Your task to perform on an android device: turn on data saver in the chrome app Image 0: 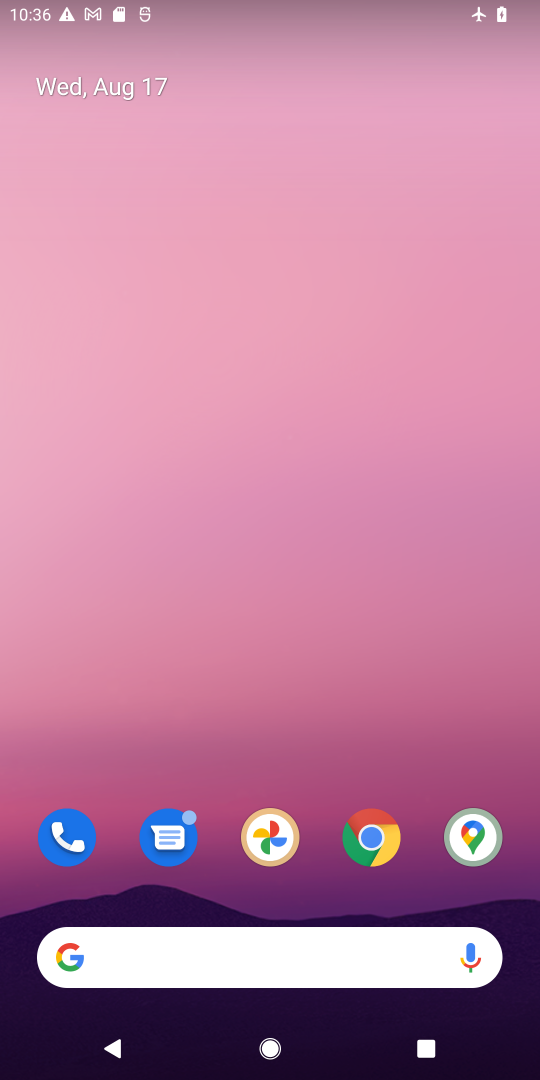
Step 0: click (373, 838)
Your task to perform on an android device: turn on data saver in the chrome app Image 1: 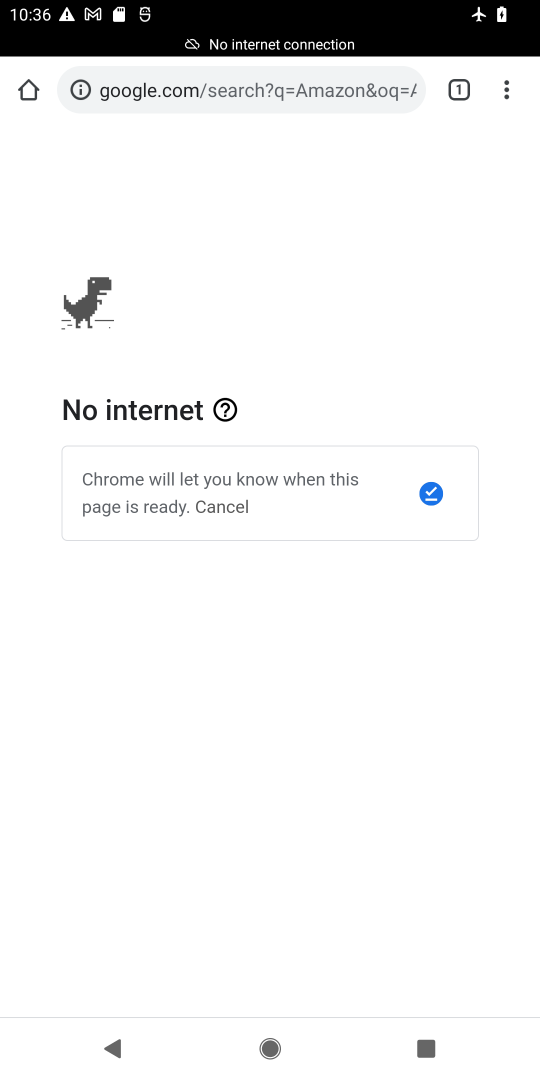
Step 1: drag from (509, 91) to (320, 841)
Your task to perform on an android device: turn on data saver in the chrome app Image 2: 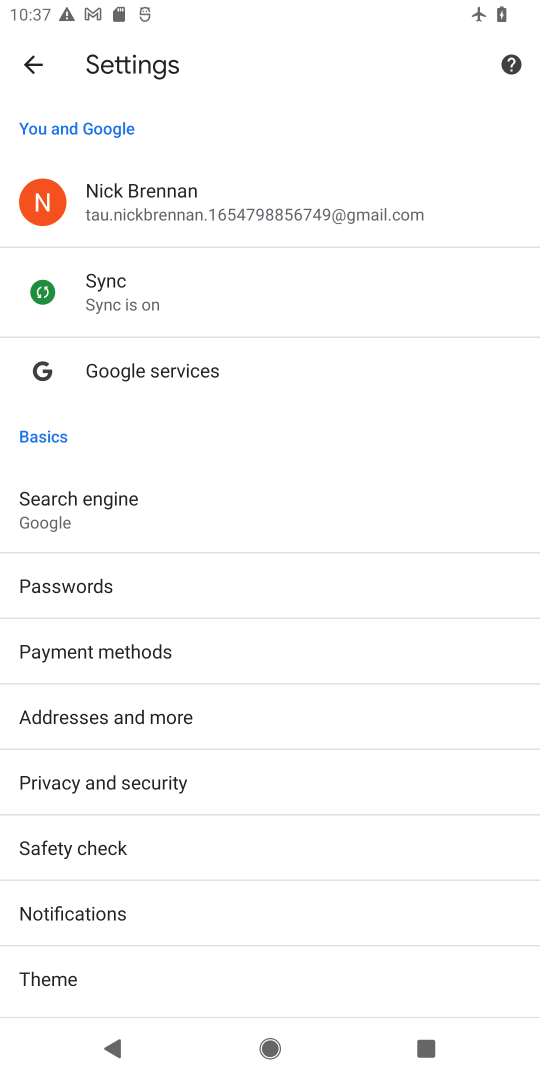
Step 2: drag from (176, 854) to (270, 700)
Your task to perform on an android device: turn on data saver in the chrome app Image 3: 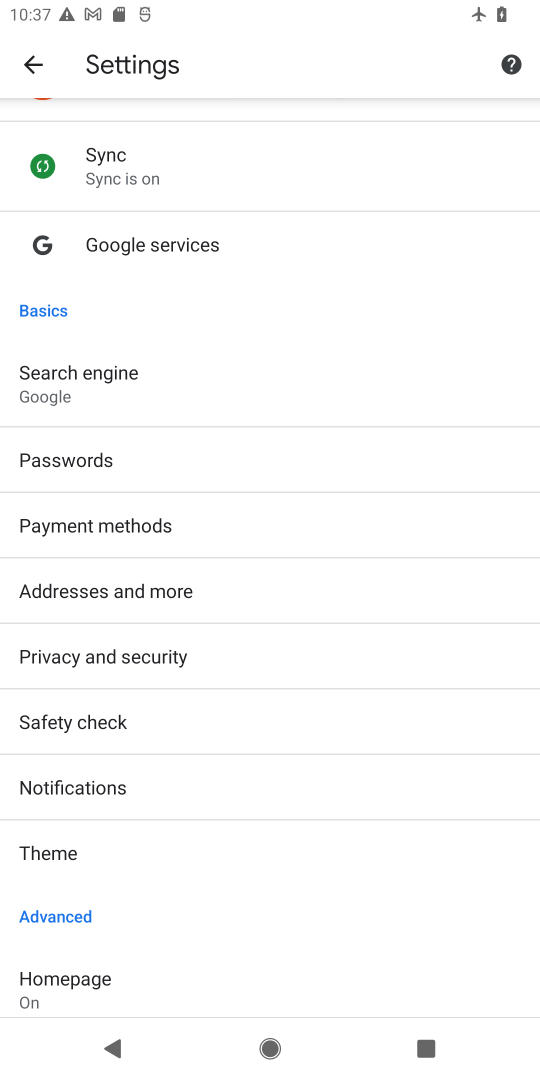
Step 3: drag from (183, 859) to (279, 699)
Your task to perform on an android device: turn on data saver in the chrome app Image 4: 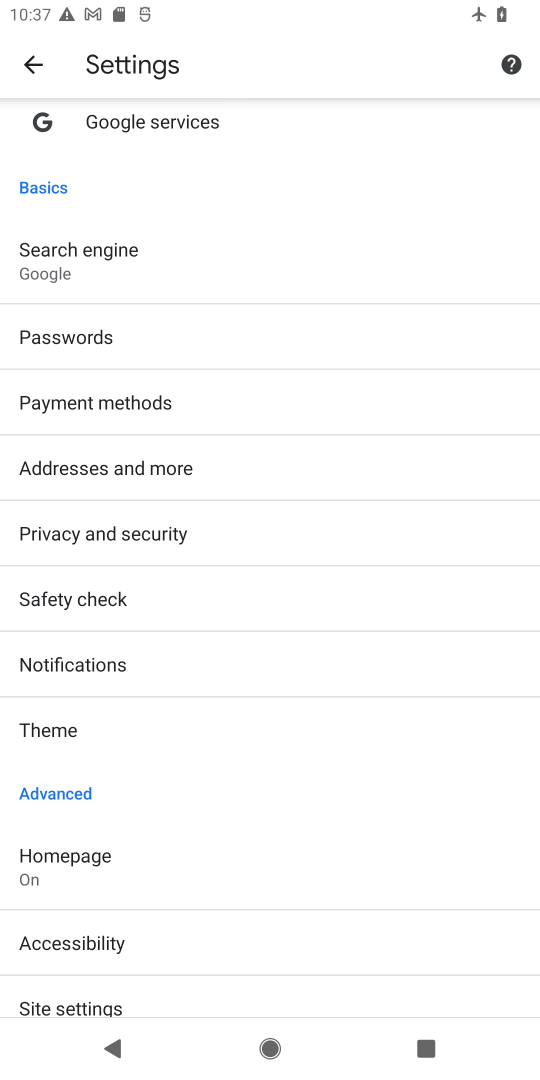
Step 4: drag from (174, 898) to (274, 740)
Your task to perform on an android device: turn on data saver in the chrome app Image 5: 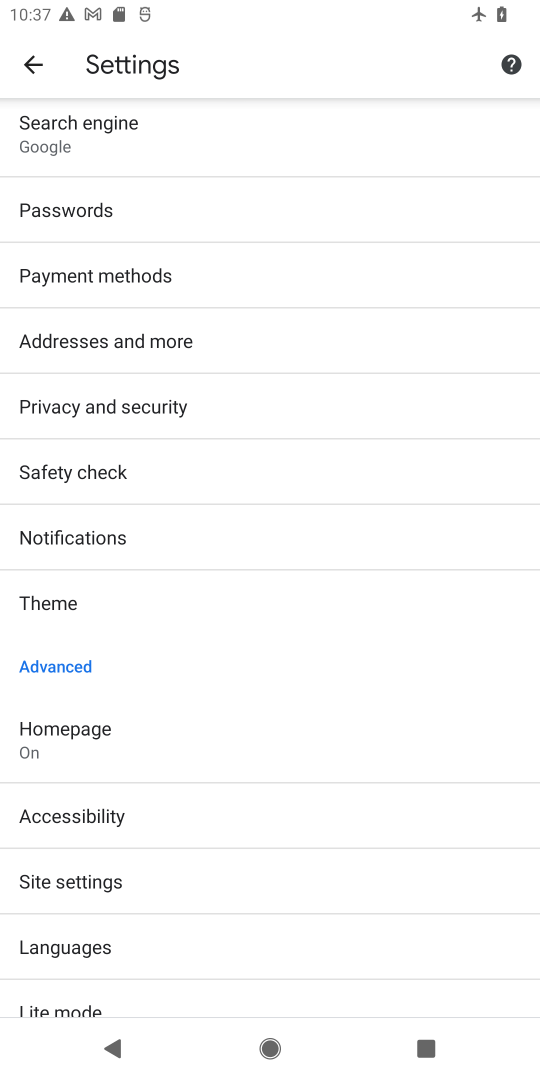
Step 5: drag from (159, 858) to (304, 690)
Your task to perform on an android device: turn on data saver in the chrome app Image 6: 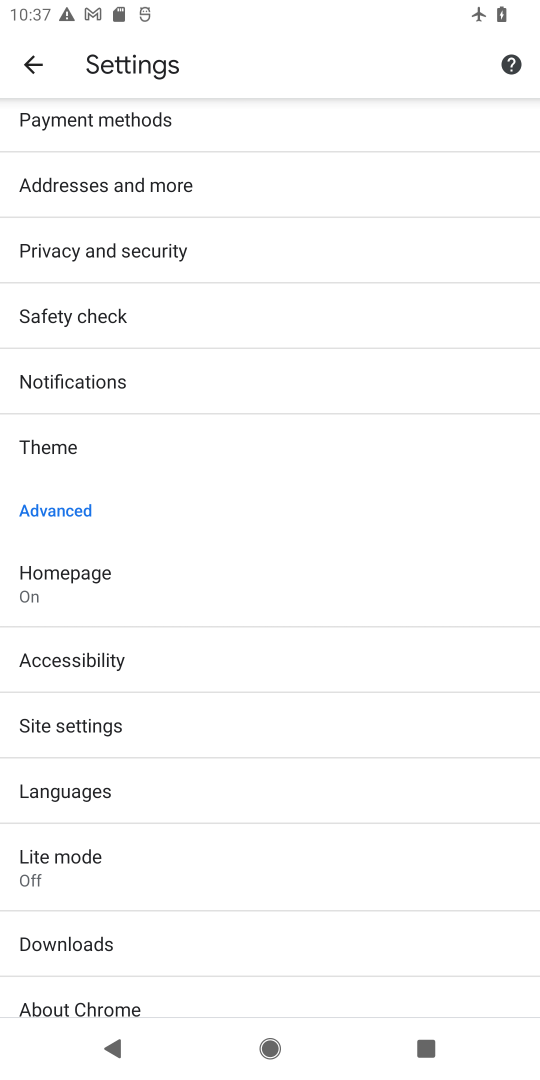
Step 6: click (33, 860)
Your task to perform on an android device: turn on data saver in the chrome app Image 7: 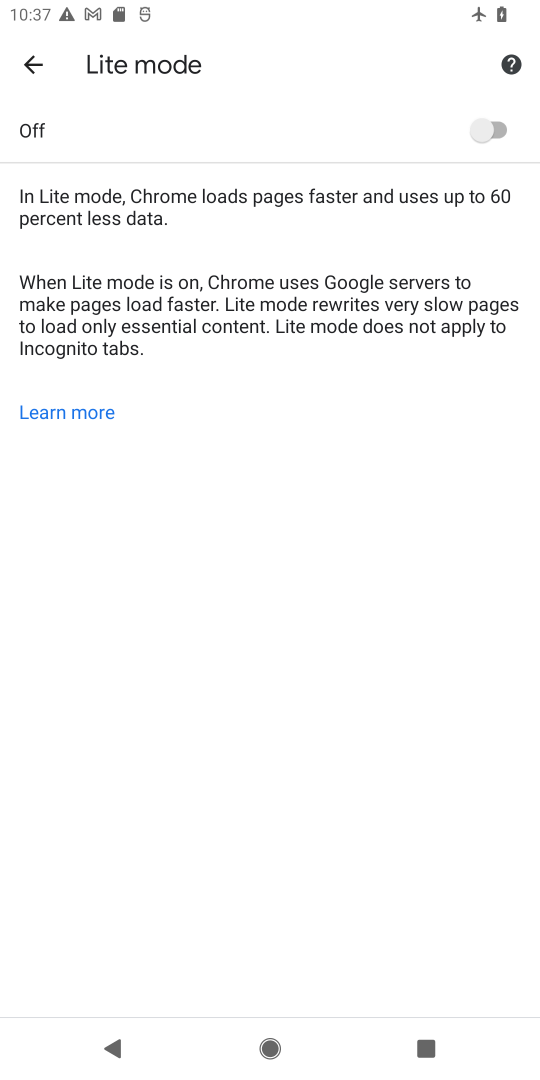
Step 7: click (502, 147)
Your task to perform on an android device: turn on data saver in the chrome app Image 8: 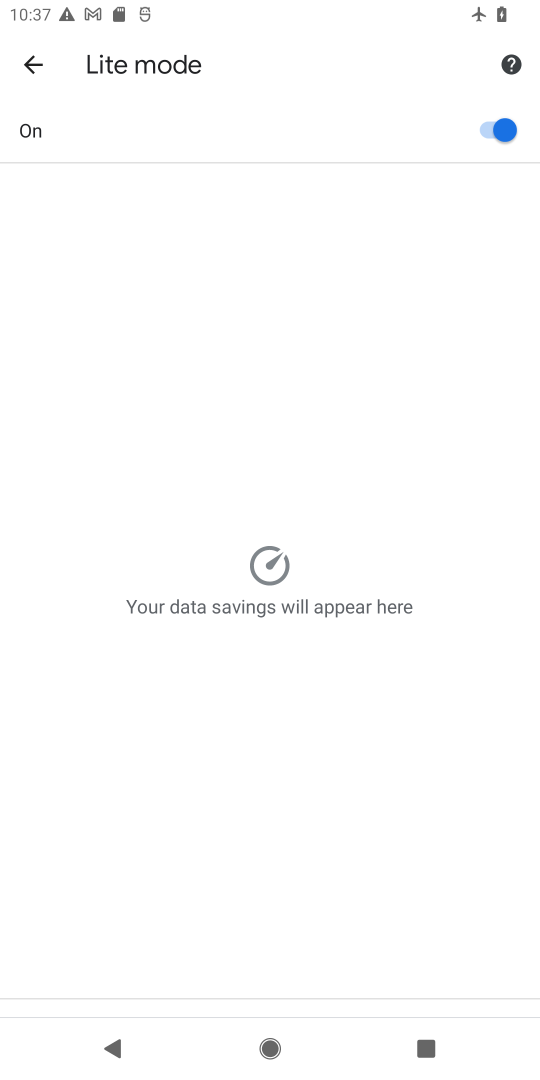
Step 8: task complete